Your task to perform on an android device: When is my next meeting? Image 0: 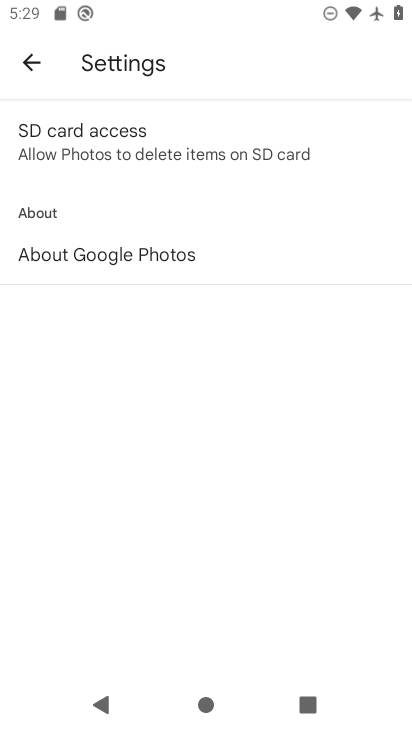
Step 0: press home button
Your task to perform on an android device: When is my next meeting? Image 1: 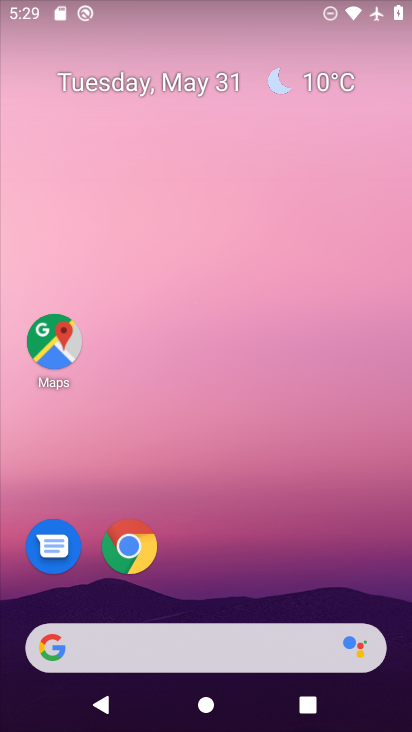
Step 1: click (169, 79)
Your task to perform on an android device: When is my next meeting? Image 2: 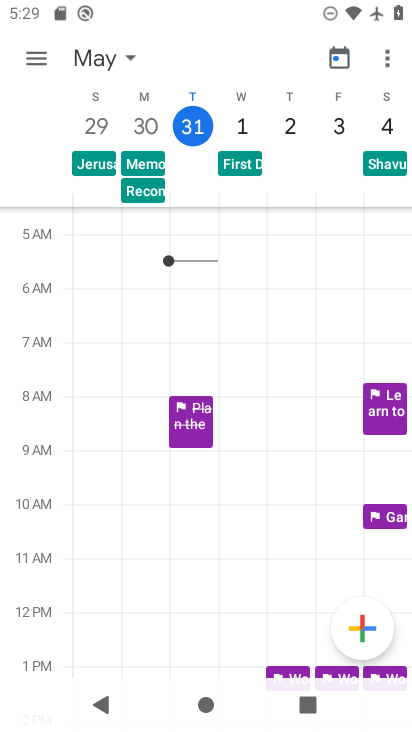
Step 2: task complete